Your task to perform on an android device: check storage Image 0: 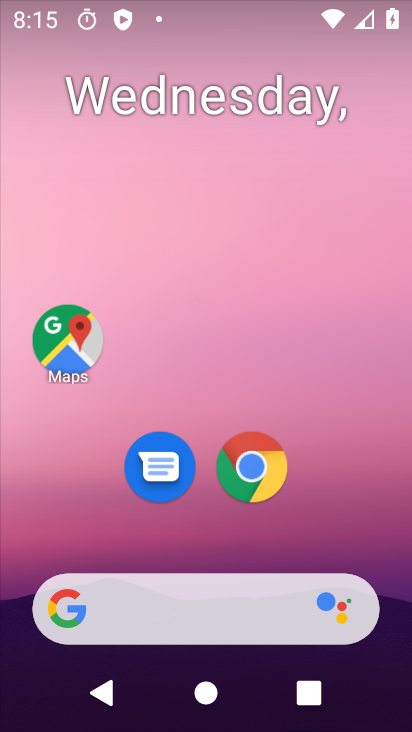
Step 0: drag from (391, 550) to (348, 203)
Your task to perform on an android device: check storage Image 1: 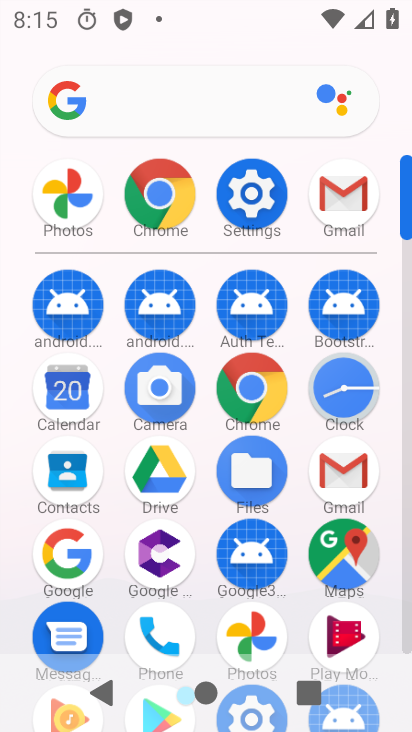
Step 1: click (232, 191)
Your task to perform on an android device: check storage Image 2: 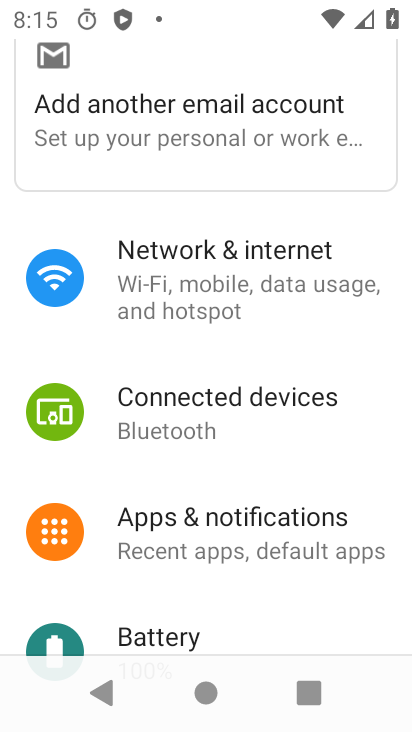
Step 2: drag from (378, 528) to (371, 280)
Your task to perform on an android device: check storage Image 3: 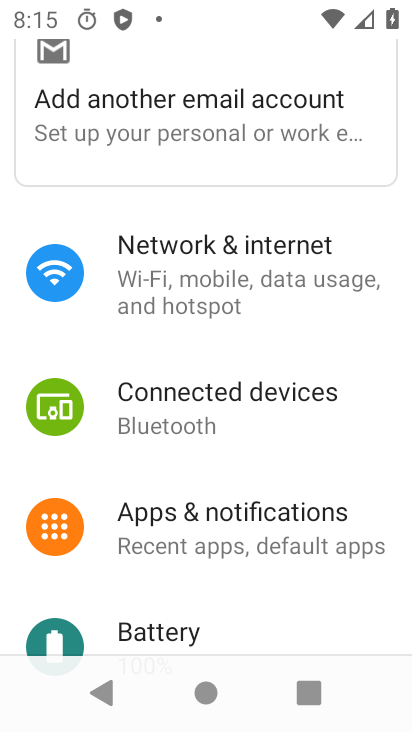
Step 3: drag from (372, 353) to (380, 257)
Your task to perform on an android device: check storage Image 4: 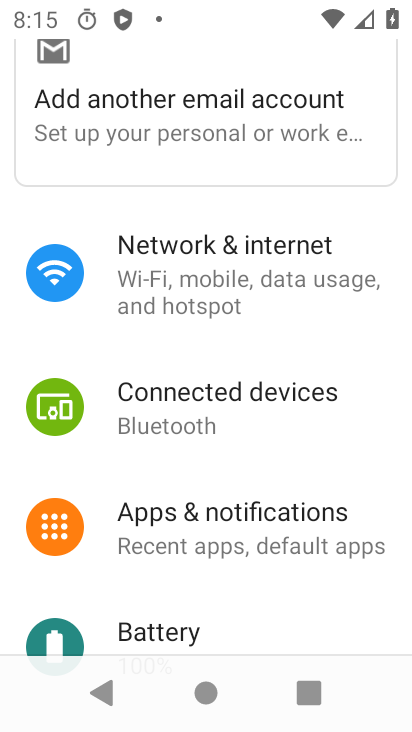
Step 4: drag from (394, 576) to (409, 244)
Your task to perform on an android device: check storage Image 5: 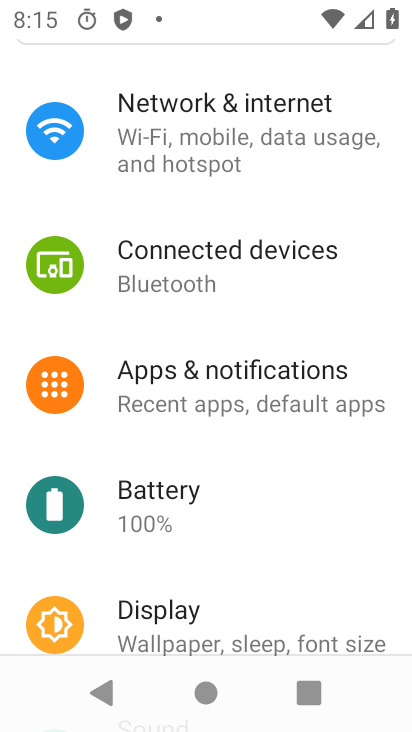
Step 5: drag from (383, 579) to (392, 242)
Your task to perform on an android device: check storage Image 6: 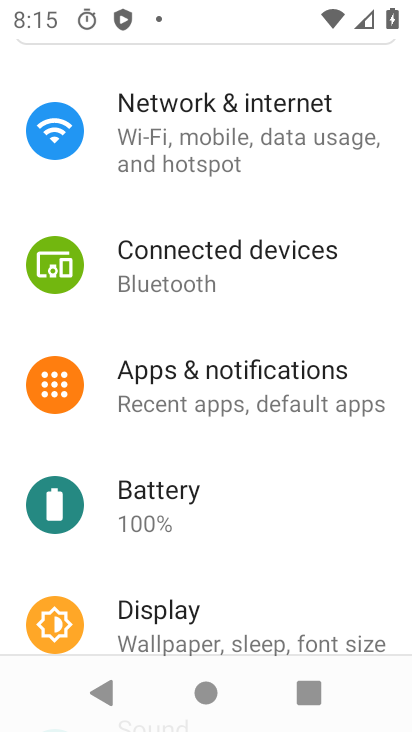
Step 6: drag from (393, 584) to (401, 167)
Your task to perform on an android device: check storage Image 7: 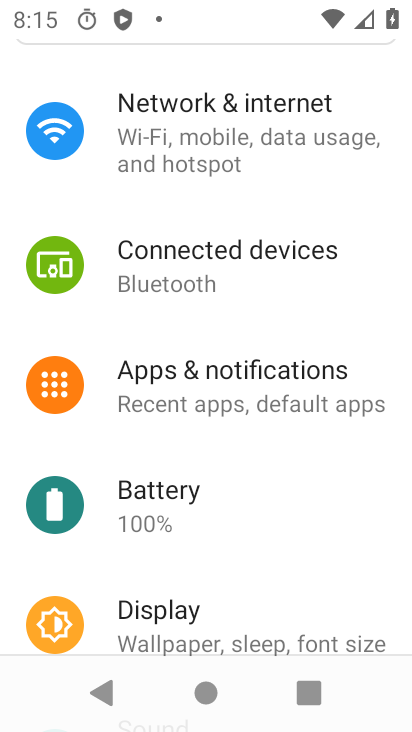
Step 7: drag from (382, 547) to (388, 187)
Your task to perform on an android device: check storage Image 8: 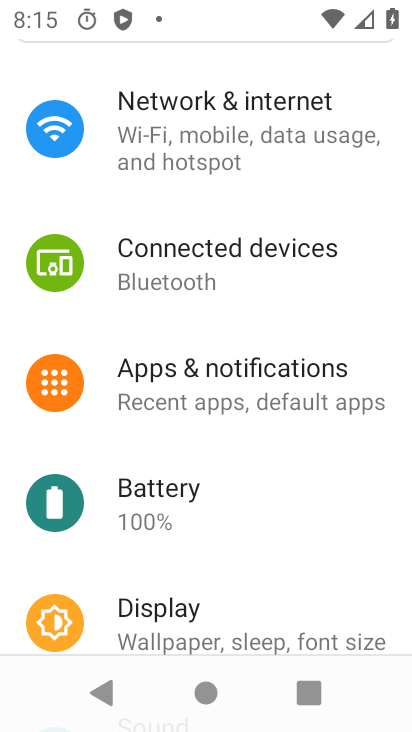
Step 8: drag from (380, 531) to (365, 209)
Your task to perform on an android device: check storage Image 9: 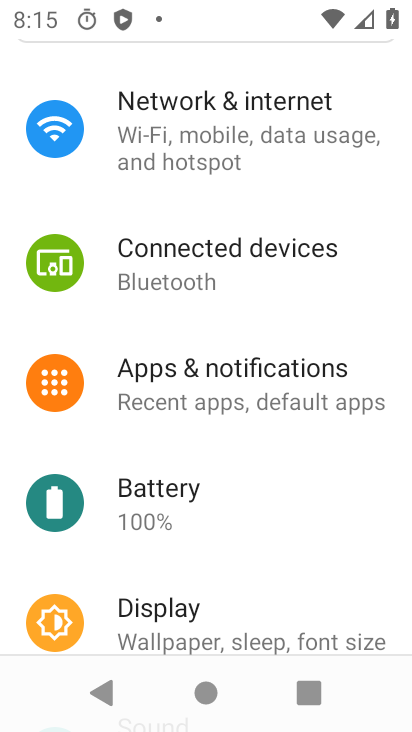
Step 9: drag from (372, 388) to (361, 207)
Your task to perform on an android device: check storage Image 10: 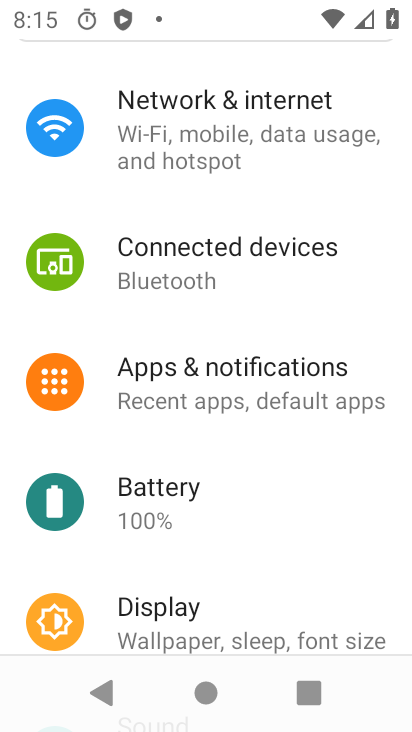
Step 10: drag from (379, 580) to (380, 216)
Your task to perform on an android device: check storage Image 11: 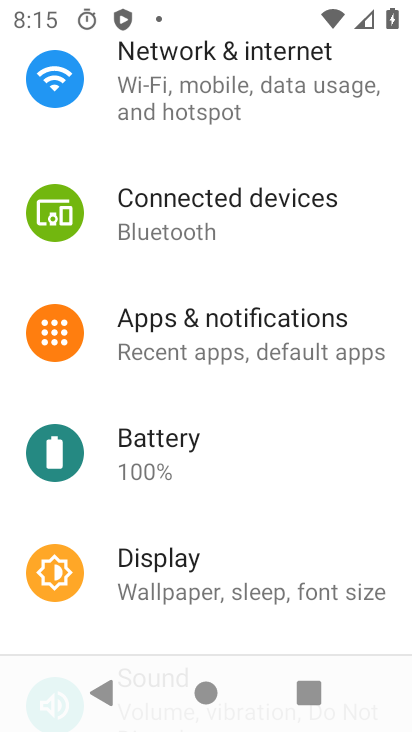
Step 11: click (399, 154)
Your task to perform on an android device: check storage Image 12: 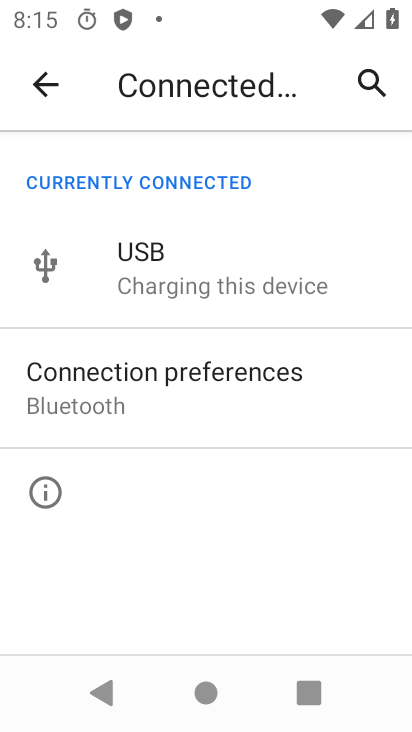
Step 12: click (51, 81)
Your task to perform on an android device: check storage Image 13: 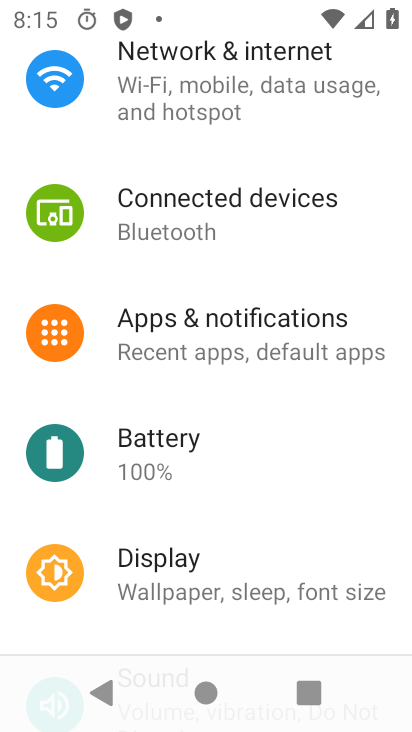
Step 13: drag from (373, 521) to (352, 101)
Your task to perform on an android device: check storage Image 14: 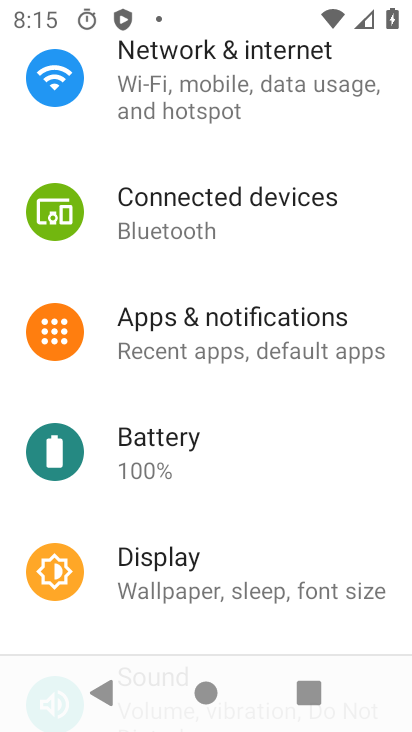
Step 14: drag from (385, 621) to (370, 112)
Your task to perform on an android device: check storage Image 15: 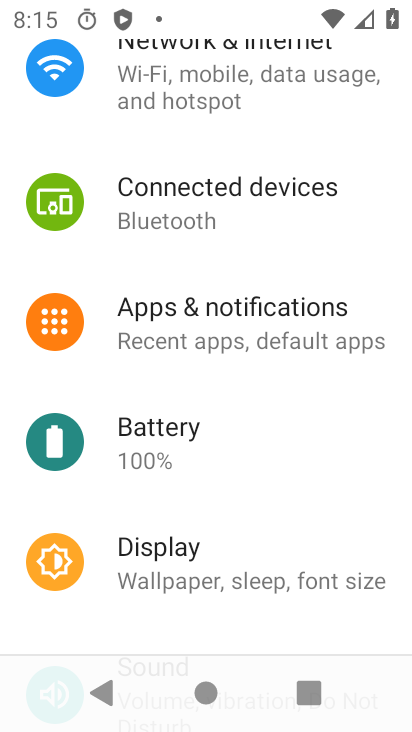
Step 15: drag from (353, 563) to (362, 261)
Your task to perform on an android device: check storage Image 16: 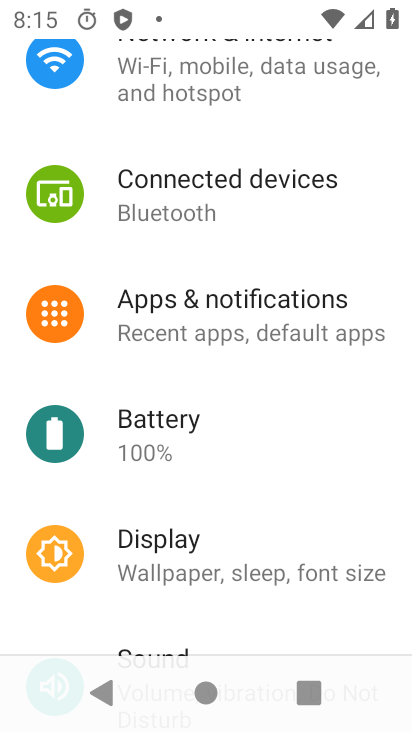
Step 16: drag from (351, 466) to (346, 207)
Your task to perform on an android device: check storage Image 17: 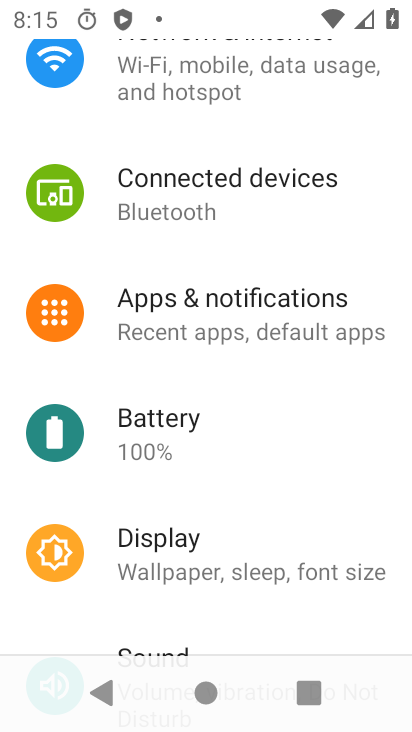
Step 17: drag from (342, 626) to (368, 190)
Your task to perform on an android device: check storage Image 18: 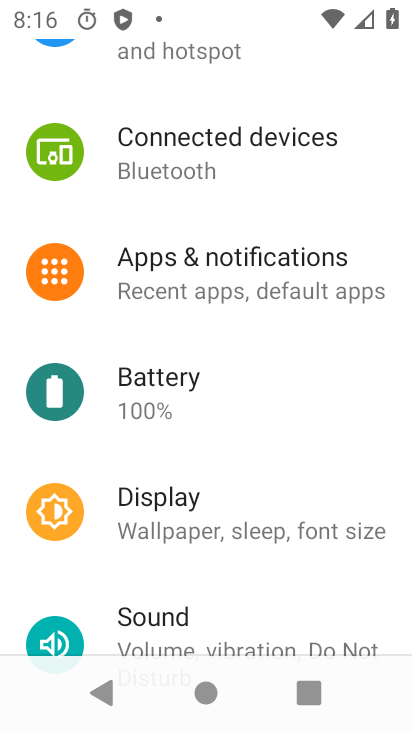
Step 18: drag from (338, 361) to (329, 149)
Your task to perform on an android device: check storage Image 19: 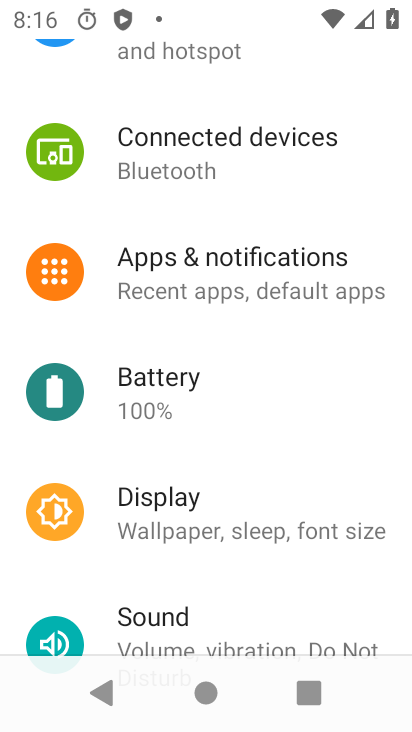
Step 19: drag from (310, 600) to (344, 308)
Your task to perform on an android device: check storage Image 20: 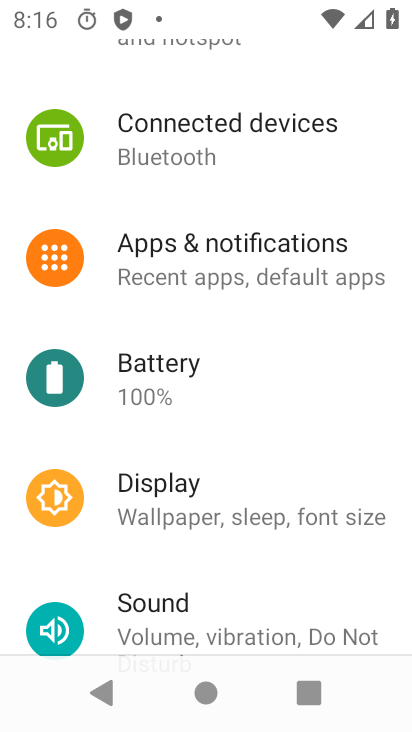
Step 20: drag from (345, 578) to (341, 137)
Your task to perform on an android device: check storage Image 21: 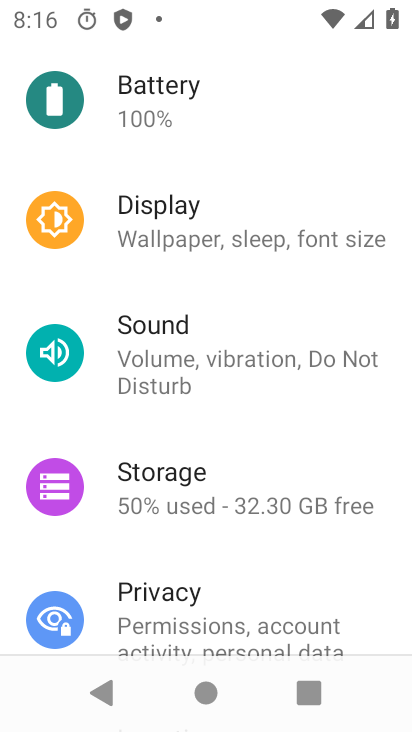
Step 21: drag from (303, 576) to (329, 230)
Your task to perform on an android device: check storage Image 22: 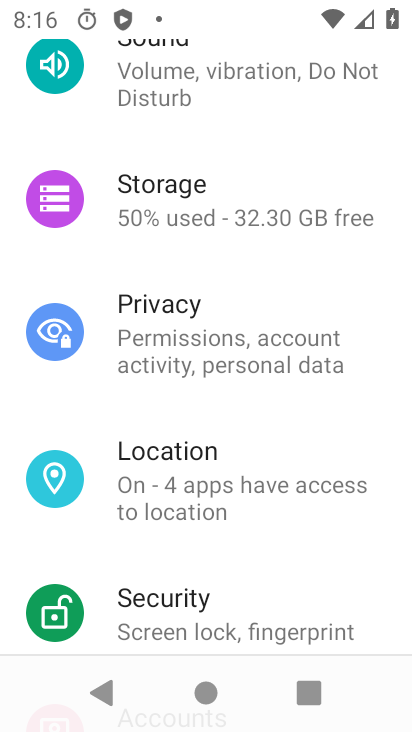
Step 22: click (134, 187)
Your task to perform on an android device: check storage Image 23: 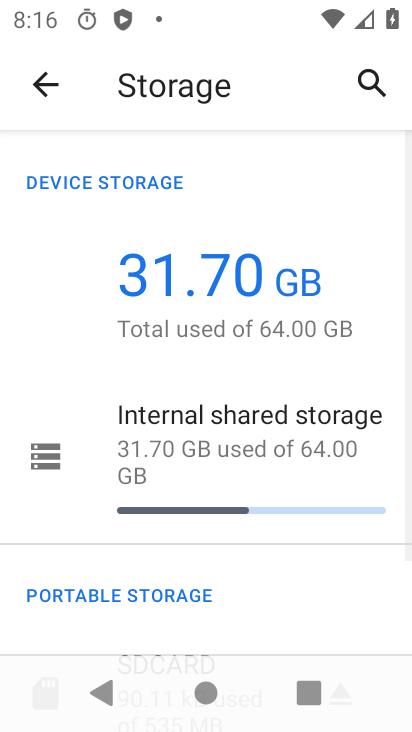
Step 23: task complete